Your task to perform on an android device: toggle translation in the chrome app Image 0: 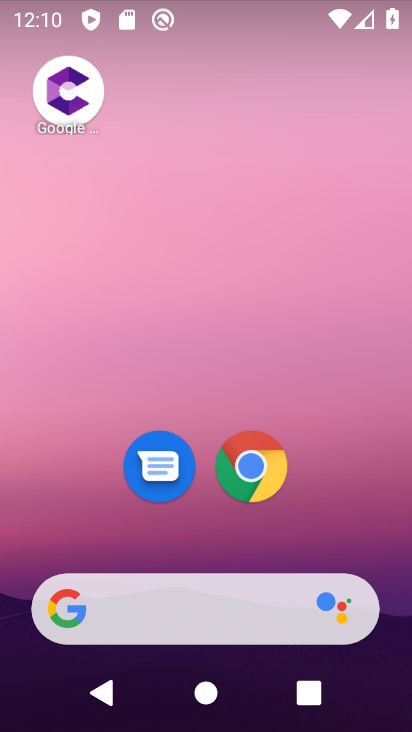
Step 0: click (257, 472)
Your task to perform on an android device: toggle translation in the chrome app Image 1: 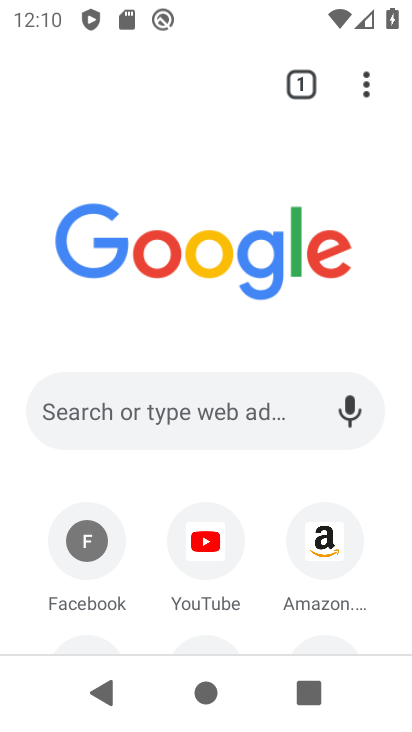
Step 1: drag from (355, 75) to (166, 550)
Your task to perform on an android device: toggle translation in the chrome app Image 2: 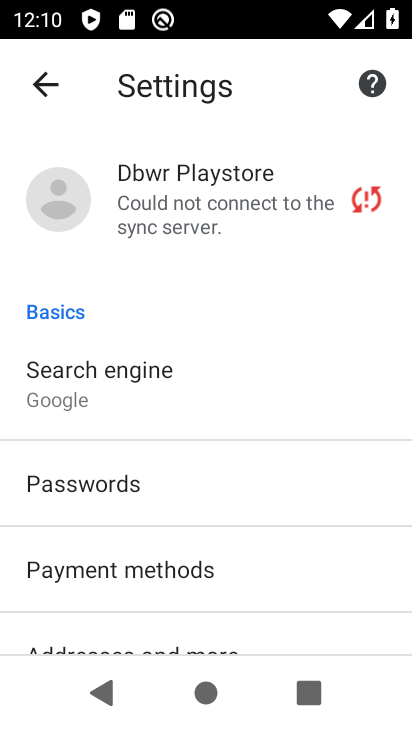
Step 2: drag from (165, 581) to (236, 23)
Your task to perform on an android device: toggle translation in the chrome app Image 3: 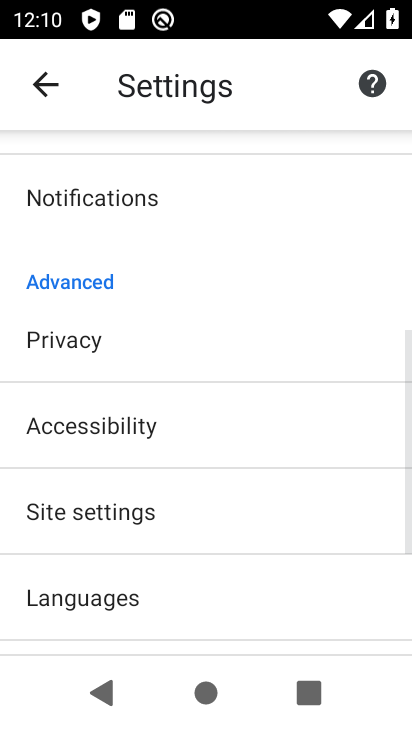
Step 3: click (186, 560)
Your task to perform on an android device: toggle translation in the chrome app Image 4: 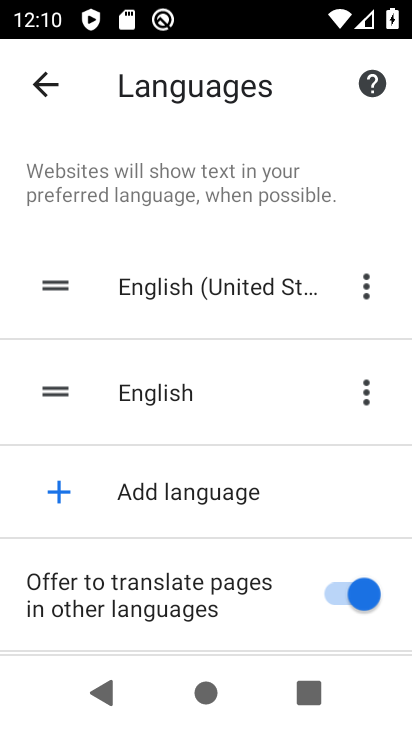
Step 4: click (330, 596)
Your task to perform on an android device: toggle translation in the chrome app Image 5: 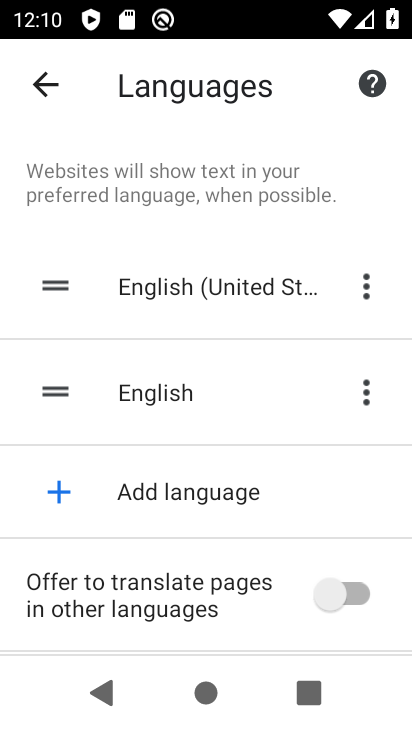
Step 5: task complete